Your task to perform on an android device: Open settings on Google Maps Image 0: 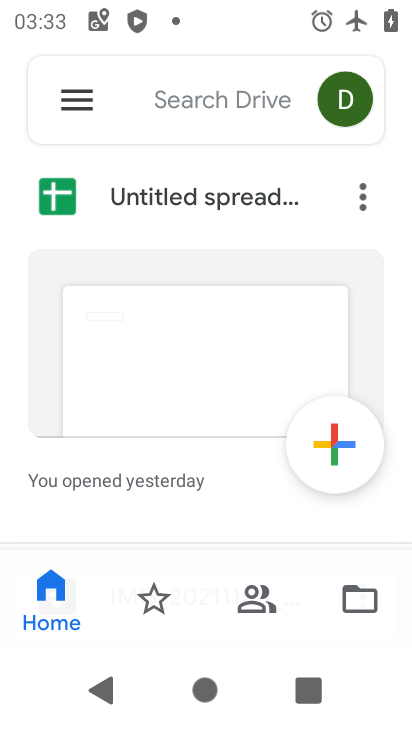
Step 0: press home button
Your task to perform on an android device: Open settings on Google Maps Image 1: 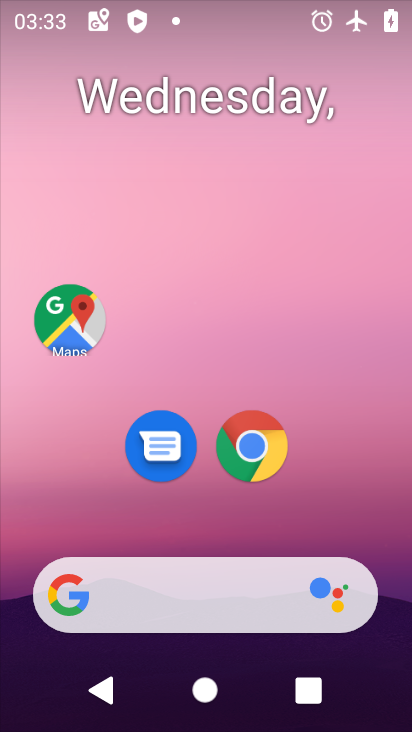
Step 1: click (43, 327)
Your task to perform on an android device: Open settings on Google Maps Image 2: 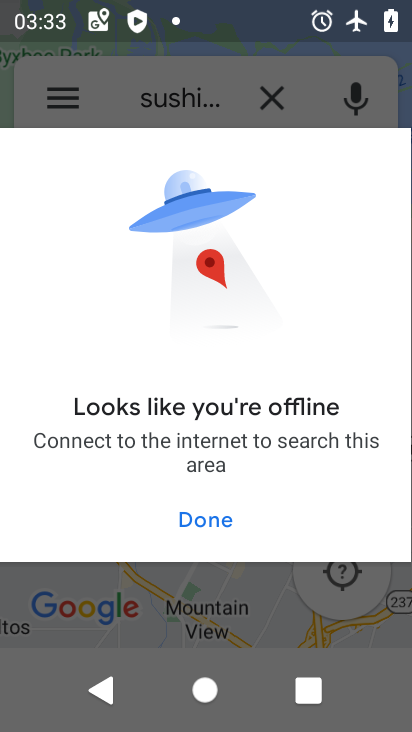
Step 2: click (214, 515)
Your task to perform on an android device: Open settings on Google Maps Image 3: 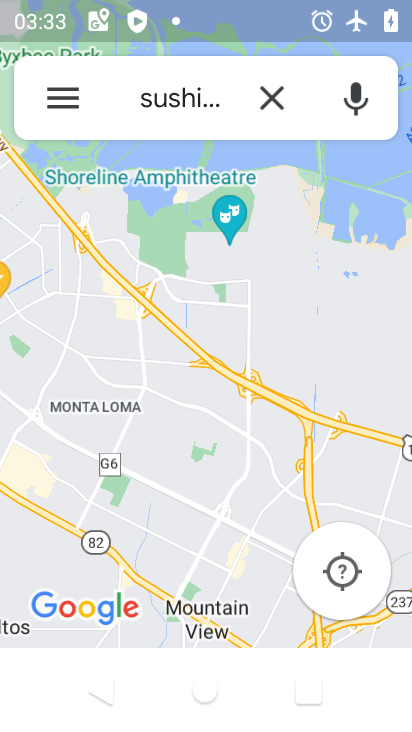
Step 3: click (58, 100)
Your task to perform on an android device: Open settings on Google Maps Image 4: 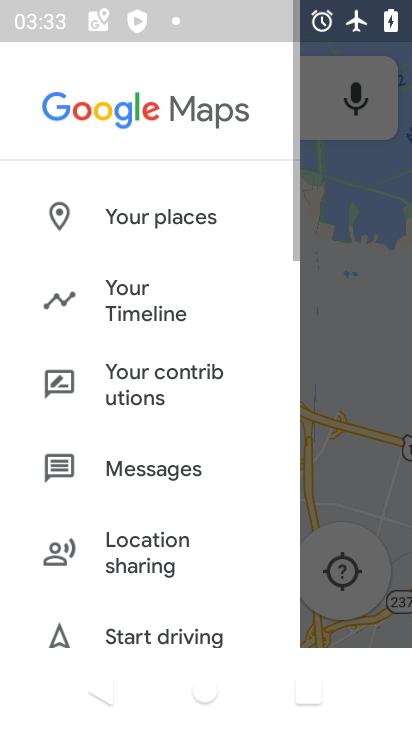
Step 4: drag from (220, 512) to (202, 152)
Your task to perform on an android device: Open settings on Google Maps Image 5: 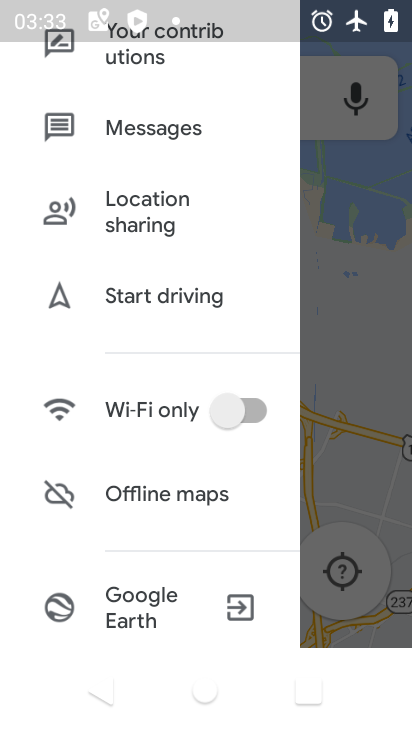
Step 5: drag from (206, 555) to (115, 107)
Your task to perform on an android device: Open settings on Google Maps Image 6: 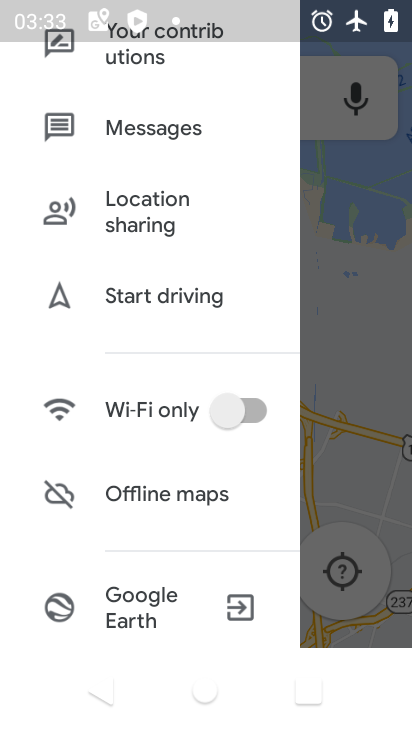
Step 6: drag from (156, 539) to (139, 111)
Your task to perform on an android device: Open settings on Google Maps Image 7: 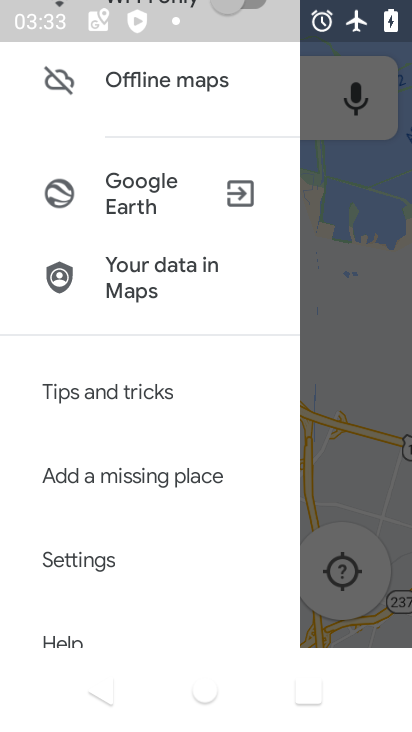
Step 7: click (127, 557)
Your task to perform on an android device: Open settings on Google Maps Image 8: 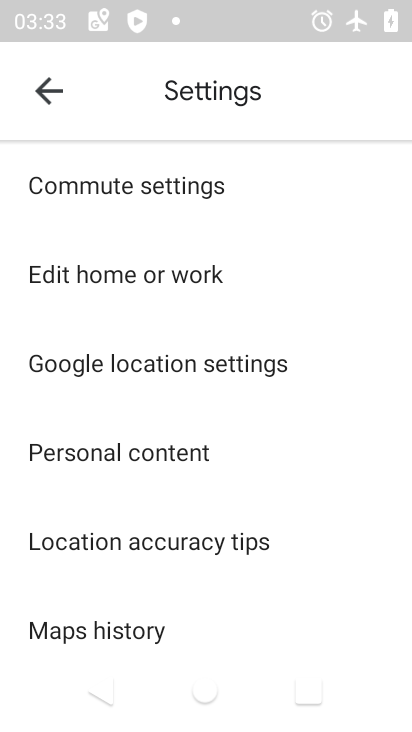
Step 8: task complete